Your task to perform on an android device: set the stopwatch Image 0: 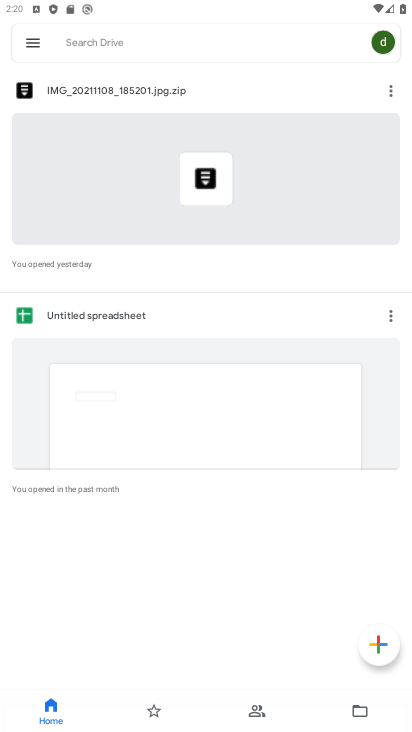
Step 0: press home button
Your task to perform on an android device: set the stopwatch Image 1: 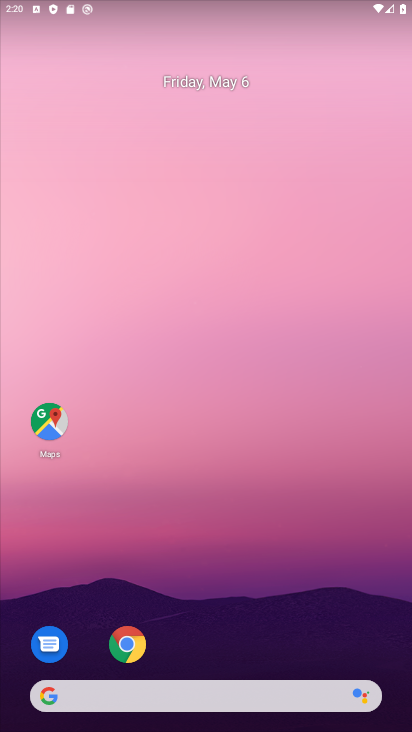
Step 1: drag from (222, 702) to (228, 135)
Your task to perform on an android device: set the stopwatch Image 2: 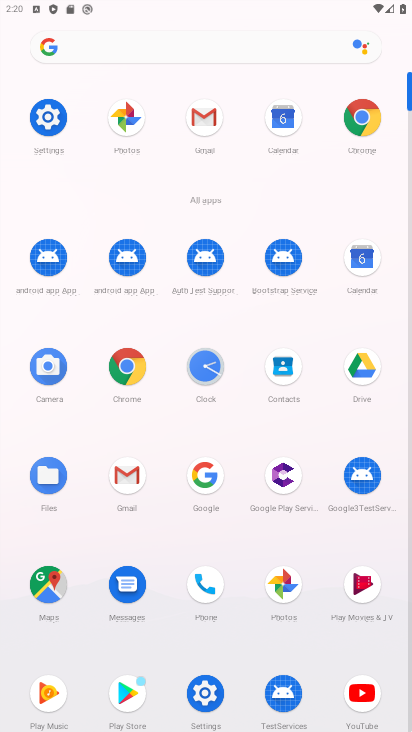
Step 2: click (209, 388)
Your task to perform on an android device: set the stopwatch Image 3: 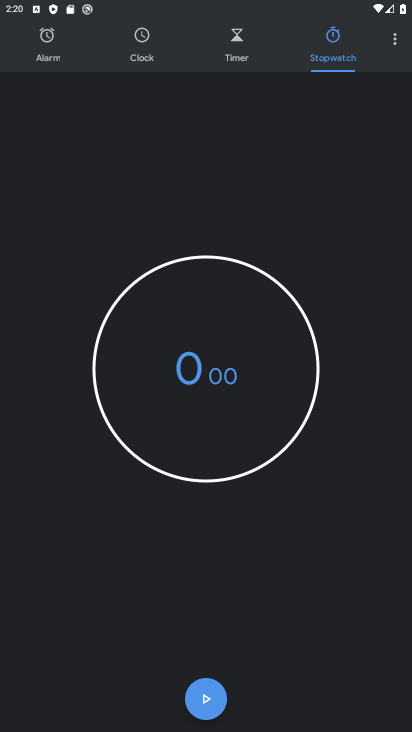
Step 3: task complete